Your task to perform on an android device: toggle improve location accuracy Image 0: 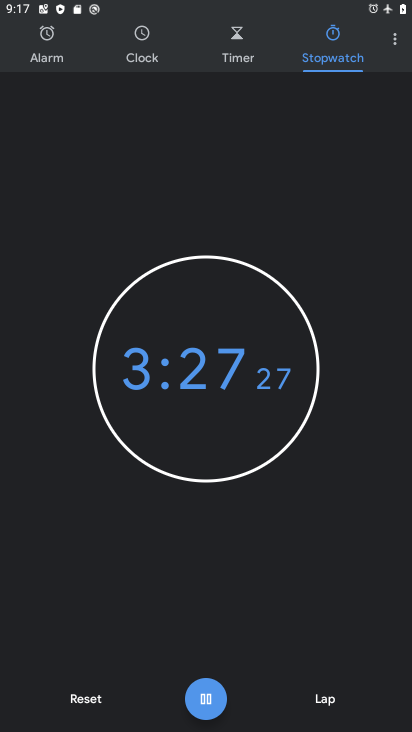
Step 0: press home button
Your task to perform on an android device: toggle improve location accuracy Image 1: 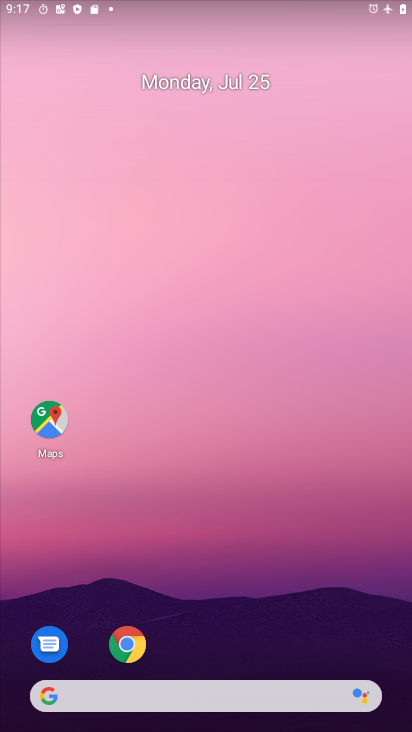
Step 1: drag from (213, 584) to (289, 53)
Your task to perform on an android device: toggle improve location accuracy Image 2: 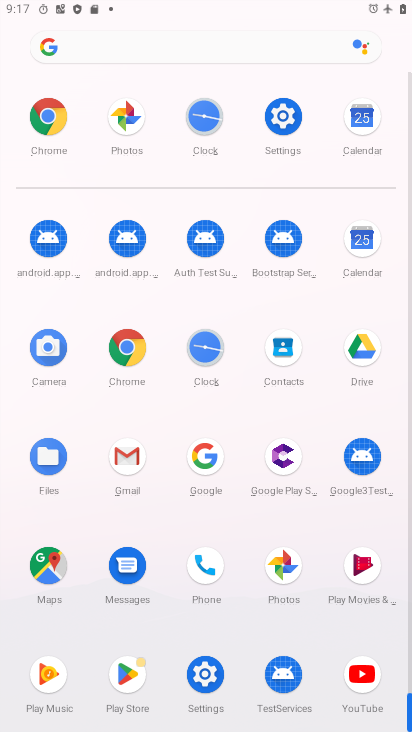
Step 2: click (218, 672)
Your task to perform on an android device: toggle improve location accuracy Image 3: 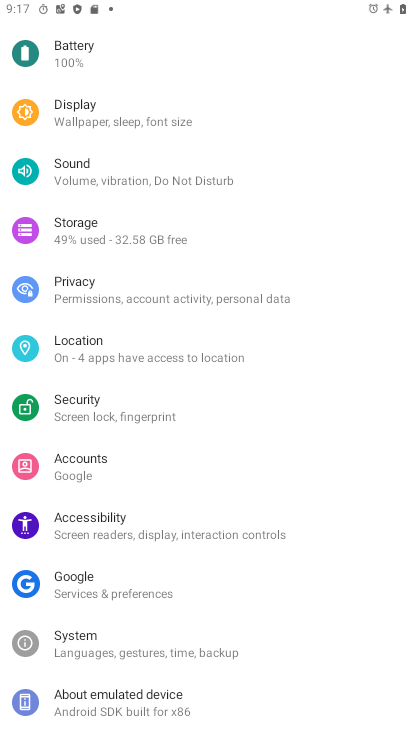
Step 3: click (230, 346)
Your task to perform on an android device: toggle improve location accuracy Image 4: 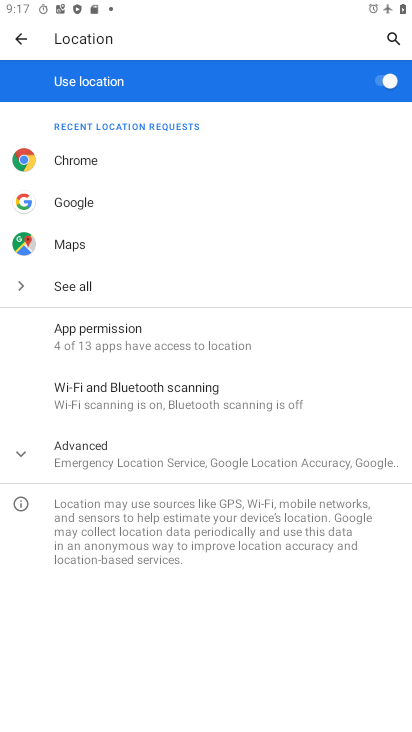
Step 4: click (149, 451)
Your task to perform on an android device: toggle improve location accuracy Image 5: 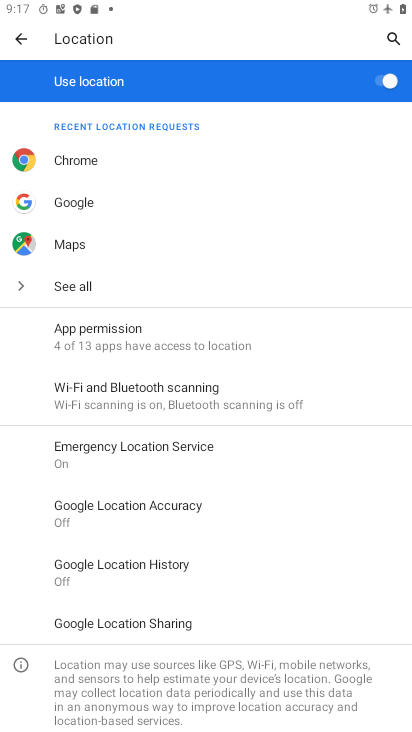
Step 5: click (207, 516)
Your task to perform on an android device: toggle improve location accuracy Image 6: 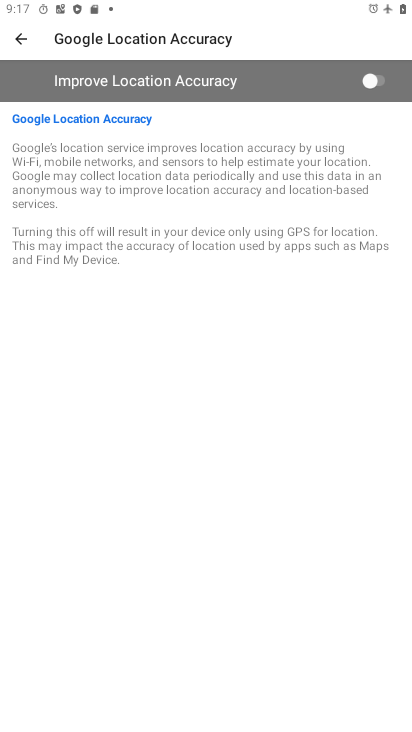
Step 6: click (389, 78)
Your task to perform on an android device: toggle improve location accuracy Image 7: 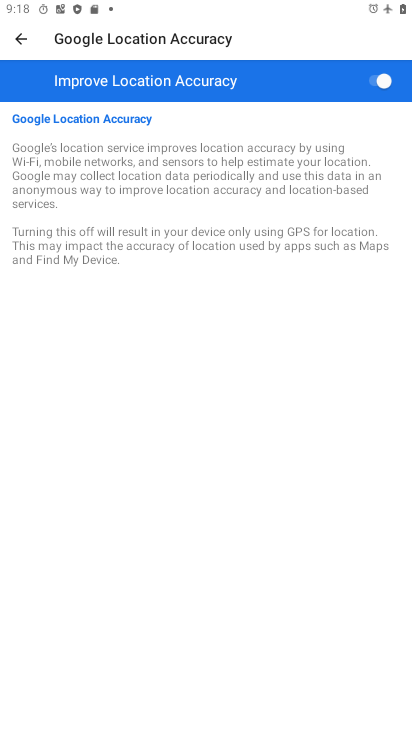
Step 7: task complete